Your task to perform on an android device: turn on improve location accuracy Image 0: 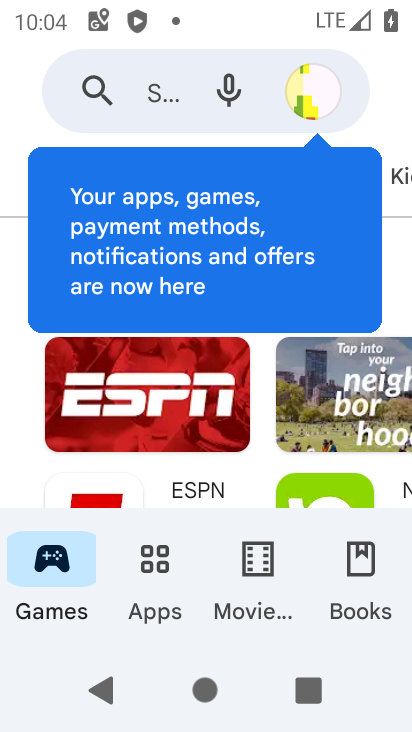
Step 0: press home button
Your task to perform on an android device: turn on improve location accuracy Image 1: 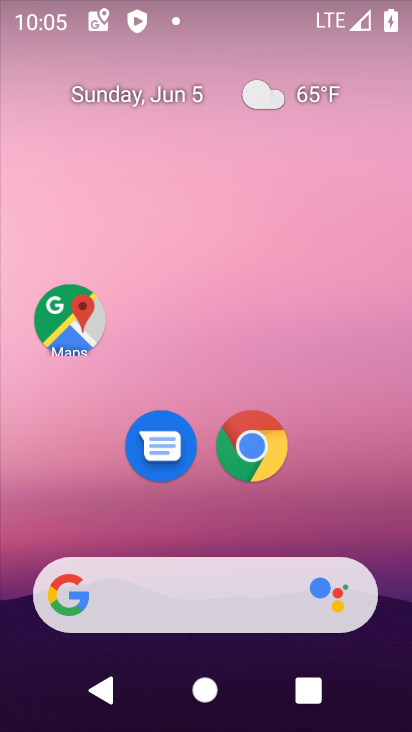
Step 1: drag from (210, 520) to (205, 61)
Your task to perform on an android device: turn on improve location accuracy Image 2: 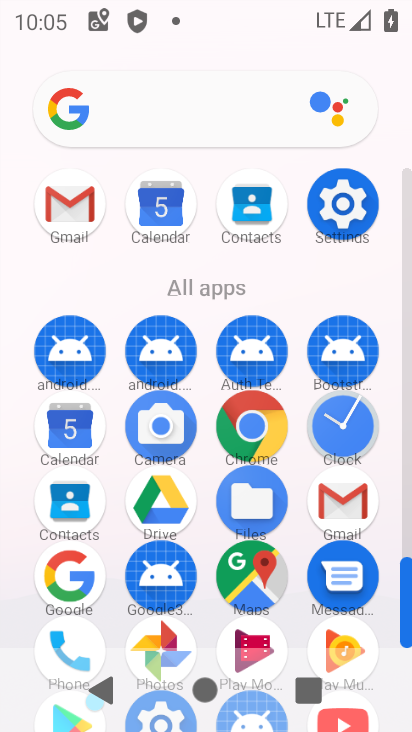
Step 2: click (340, 206)
Your task to perform on an android device: turn on improve location accuracy Image 3: 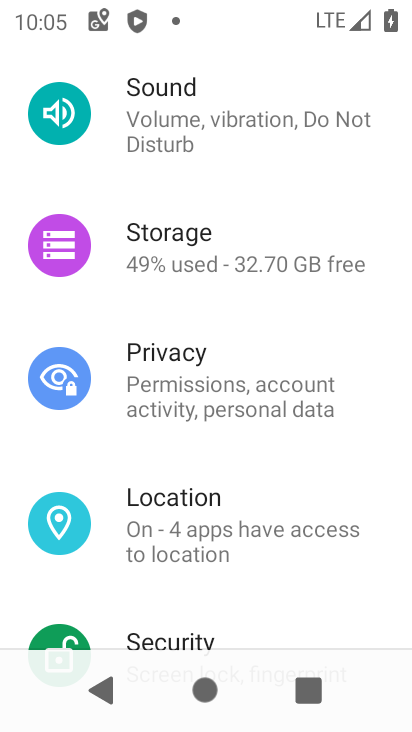
Step 3: click (207, 513)
Your task to perform on an android device: turn on improve location accuracy Image 4: 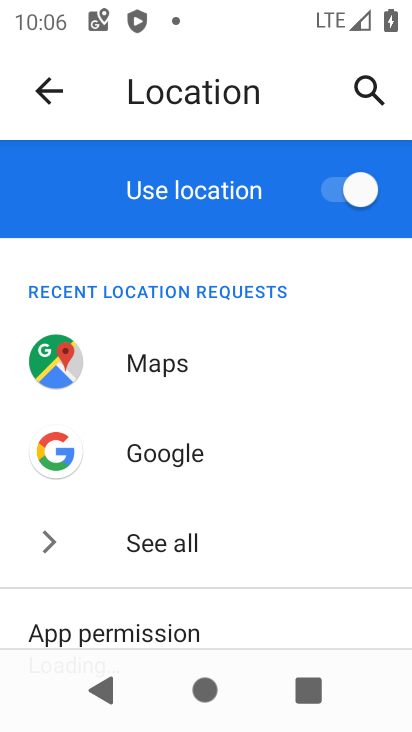
Step 4: drag from (200, 562) to (199, 229)
Your task to perform on an android device: turn on improve location accuracy Image 5: 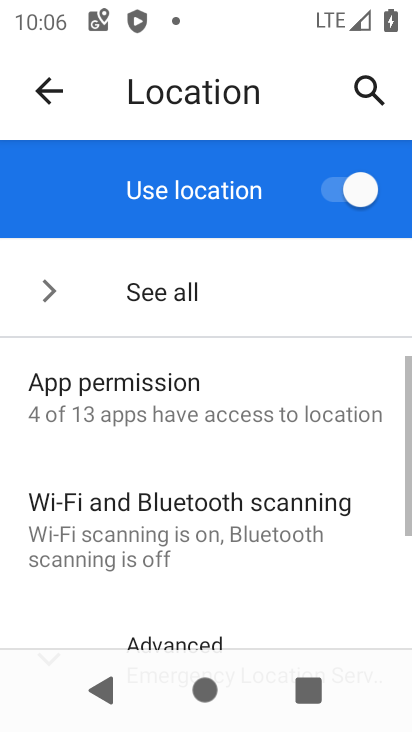
Step 5: drag from (217, 604) to (222, 373)
Your task to perform on an android device: turn on improve location accuracy Image 6: 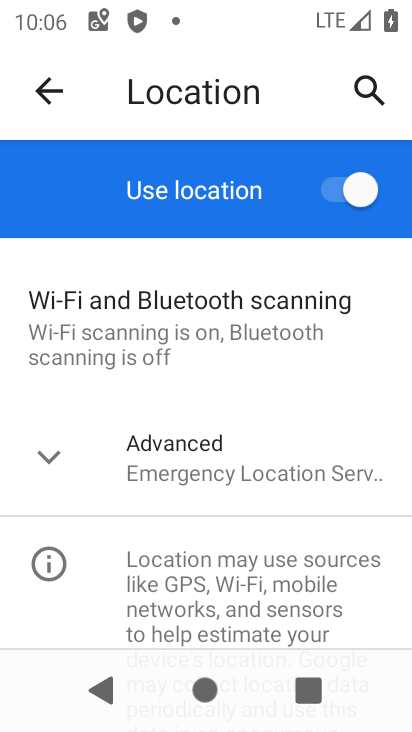
Step 6: click (152, 460)
Your task to perform on an android device: turn on improve location accuracy Image 7: 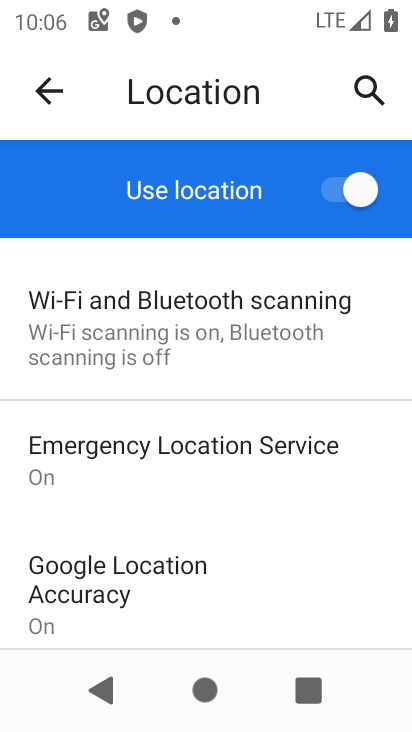
Step 7: click (157, 596)
Your task to perform on an android device: turn on improve location accuracy Image 8: 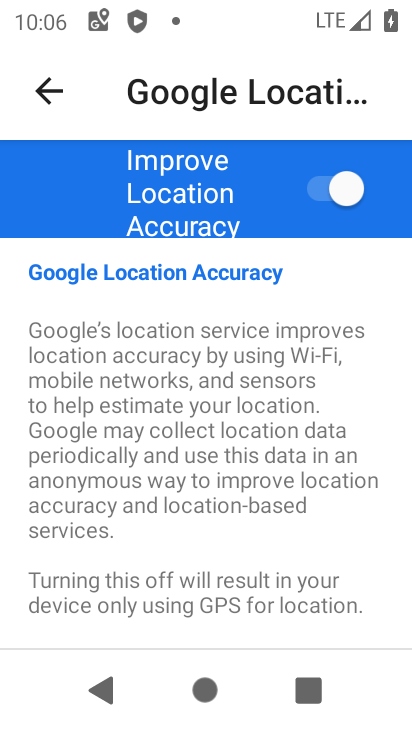
Step 8: task complete